Your task to perform on an android device: Open the Play Movies app and select the watchlist tab. Image 0: 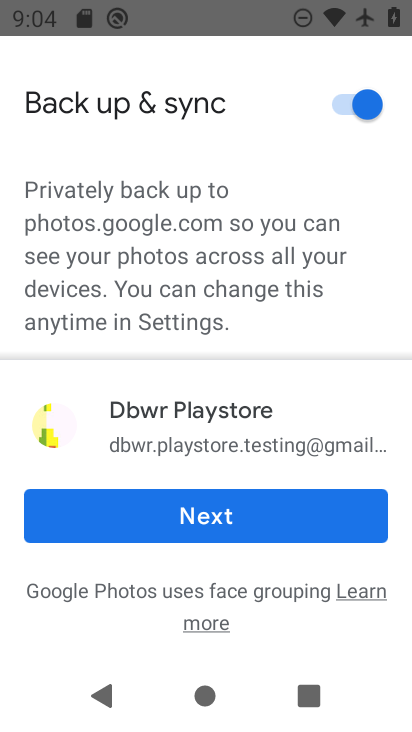
Step 0: press home button
Your task to perform on an android device: Open the Play Movies app and select the watchlist tab. Image 1: 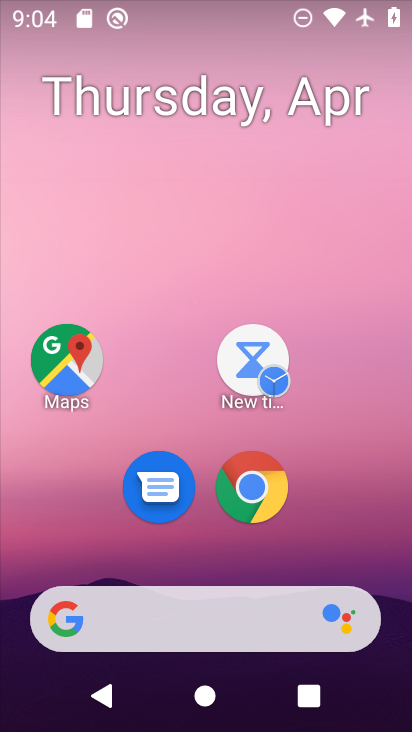
Step 1: drag from (335, 538) to (266, 93)
Your task to perform on an android device: Open the Play Movies app and select the watchlist tab. Image 2: 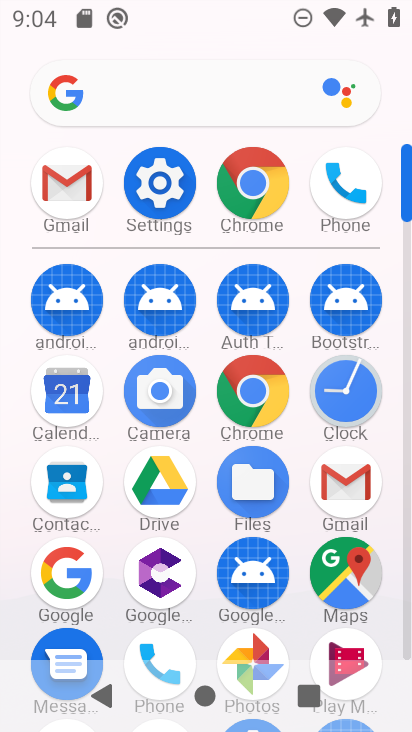
Step 2: drag from (293, 588) to (308, 389)
Your task to perform on an android device: Open the Play Movies app and select the watchlist tab. Image 3: 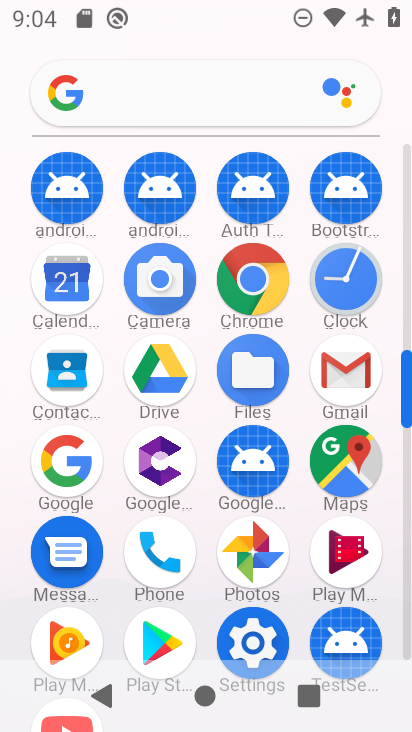
Step 3: click (343, 552)
Your task to perform on an android device: Open the Play Movies app and select the watchlist tab. Image 4: 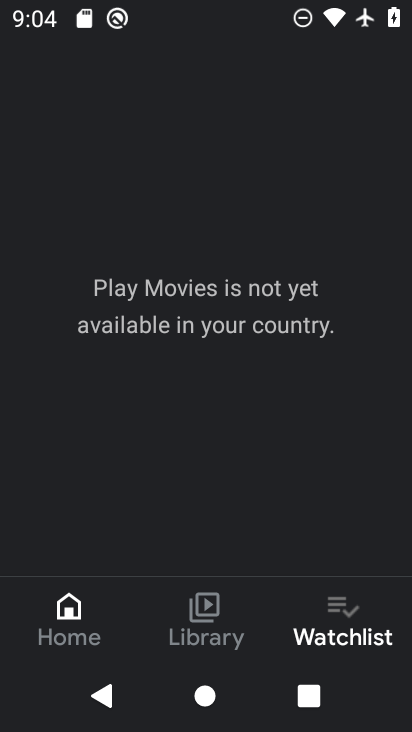
Step 4: click (333, 620)
Your task to perform on an android device: Open the Play Movies app and select the watchlist tab. Image 5: 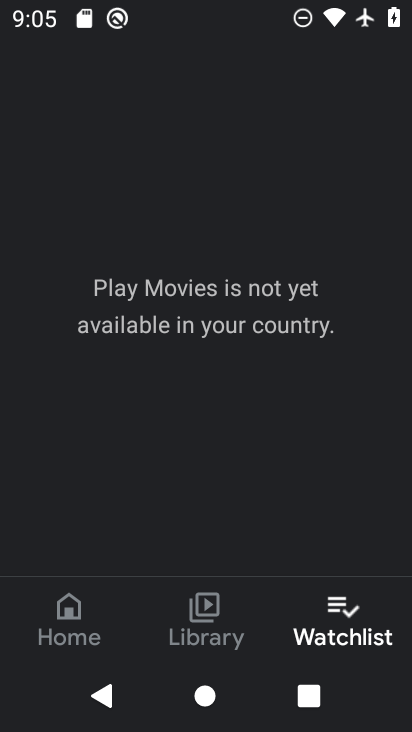
Step 5: task complete